Your task to perform on an android device: Go to Wikipedia Image 0: 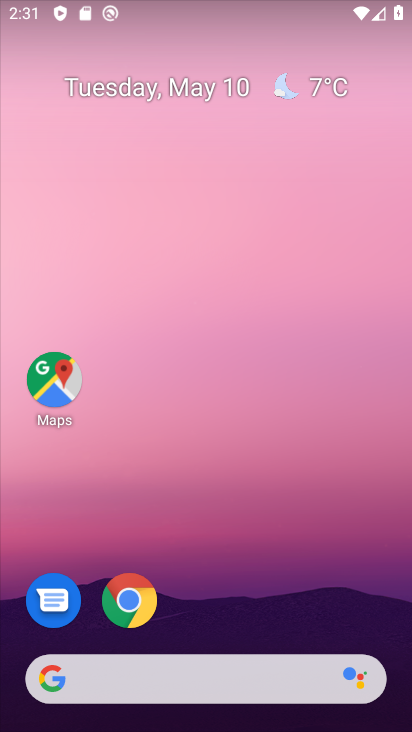
Step 0: drag from (192, 676) to (241, 200)
Your task to perform on an android device: Go to Wikipedia Image 1: 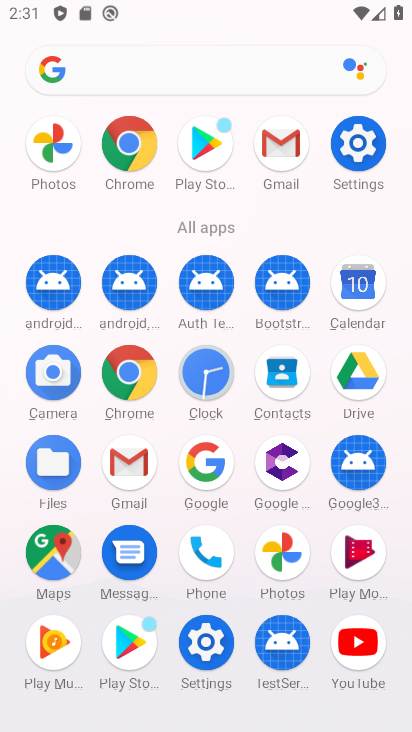
Step 1: click (139, 398)
Your task to perform on an android device: Go to Wikipedia Image 2: 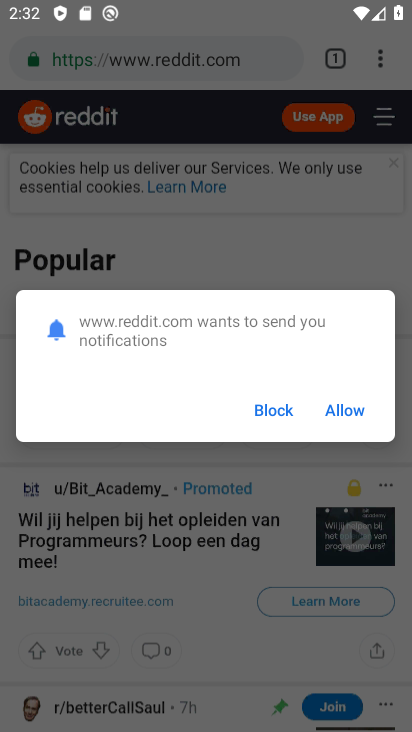
Step 2: press back button
Your task to perform on an android device: Go to Wikipedia Image 3: 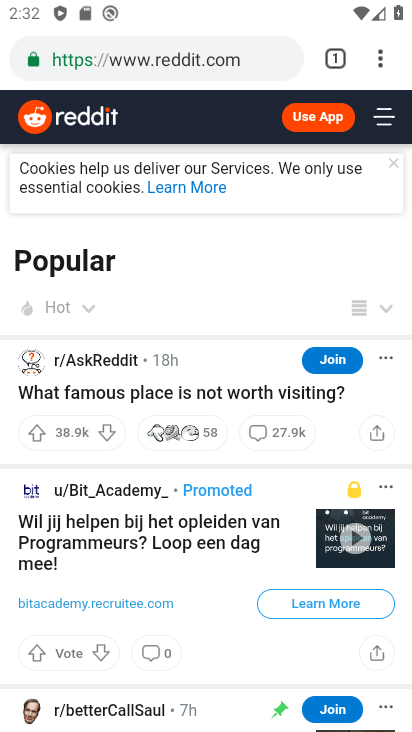
Step 3: click (200, 72)
Your task to perform on an android device: Go to Wikipedia Image 4: 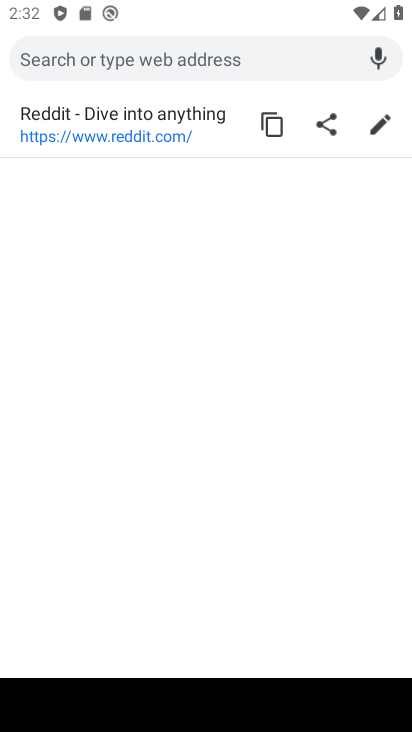
Step 4: type "wikipedia"
Your task to perform on an android device: Go to Wikipedia Image 5: 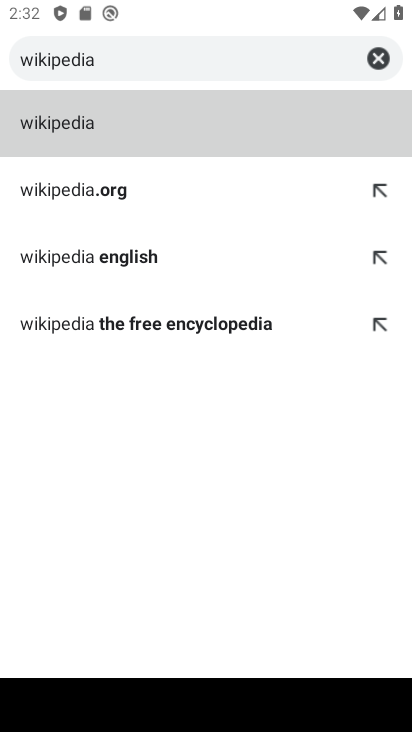
Step 5: click (172, 147)
Your task to perform on an android device: Go to Wikipedia Image 6: 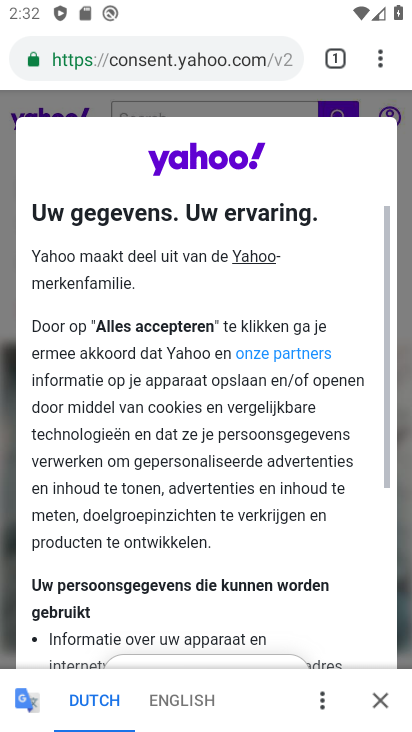
Step 6: task complete